Your task to perform on an android device: Turn on the flashlight Image 0: 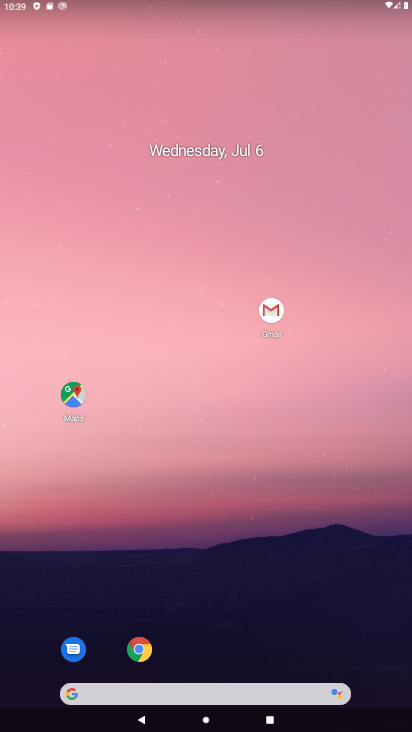
Step 0: drag from (229, 0) to (331, 529)
Your task to perform on an android device: Turn on the flashlight Image 1: 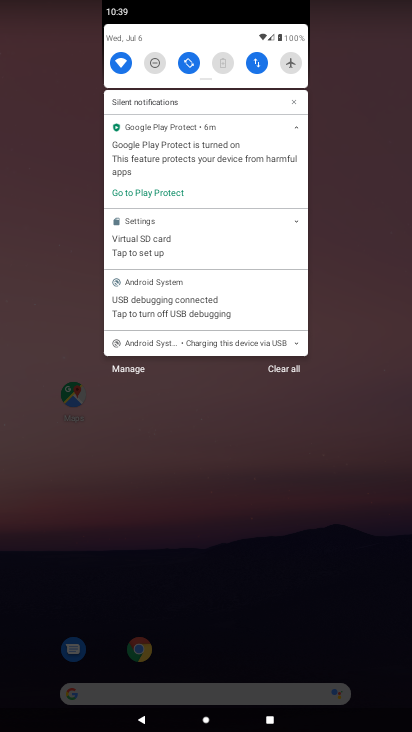
Step 1: task complete